Your task to perform on an android device: Open network settings Image 0: 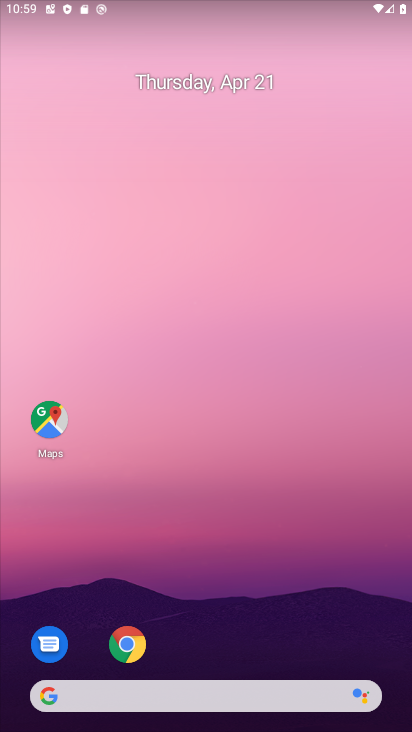
Step 0: drag from (307, 618) to (263, 253)
Your task to perform on an android device: Open network settings Image 1: 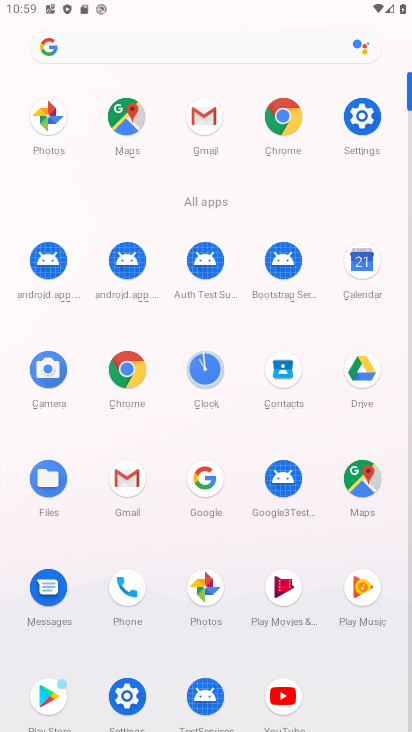
Step 1: click (353, 112)
Your task to perform on an android device: Open network settings Image 2: 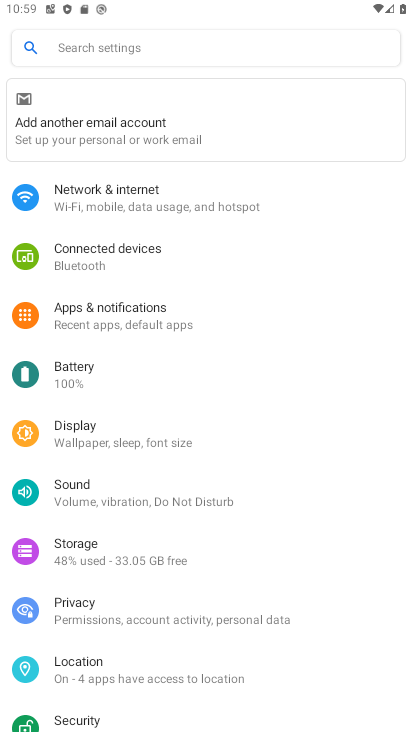
Step 2: click (270, 201)
Your task to perform on an android device: Open network settings Image 3: 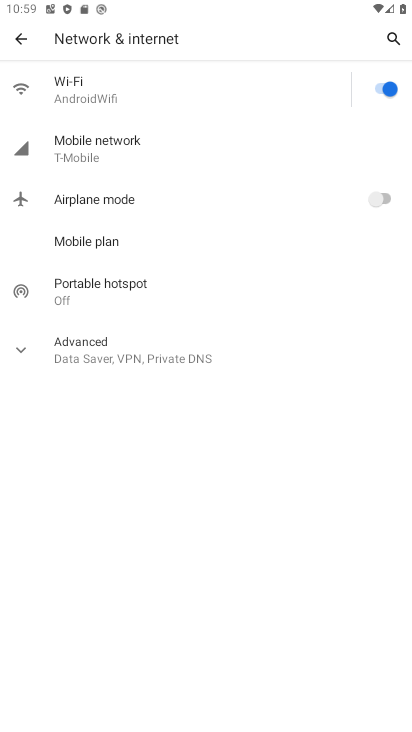
Step 3: task complete